Your task to perform on an android device: stop showing notifications on the lock screen Image 0: 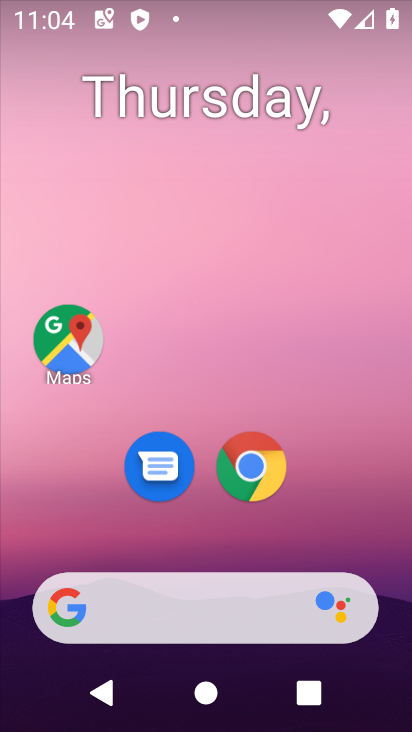
Step 0: drag from (198, 540) to (252, 30)
Your task to perform on an android device: stop showing notifications on the lock screen Image 1: 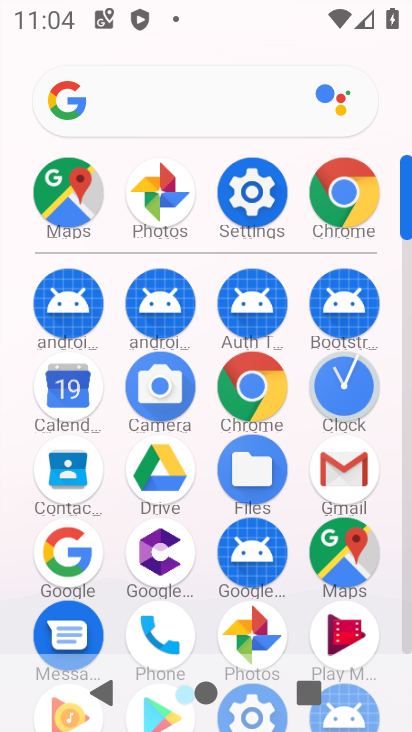
Step 1: click (250, 195)
Your task to perform on an android device: stop showing notifications on the lock screen Image 2: 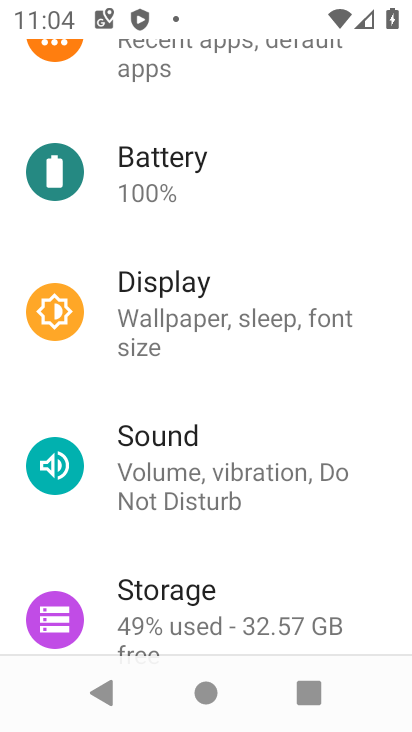
Step 2: drag from (235, 514) to (206, 85)
Your task to perform on an android device: stop showing notifications on the lock screen Image 3: 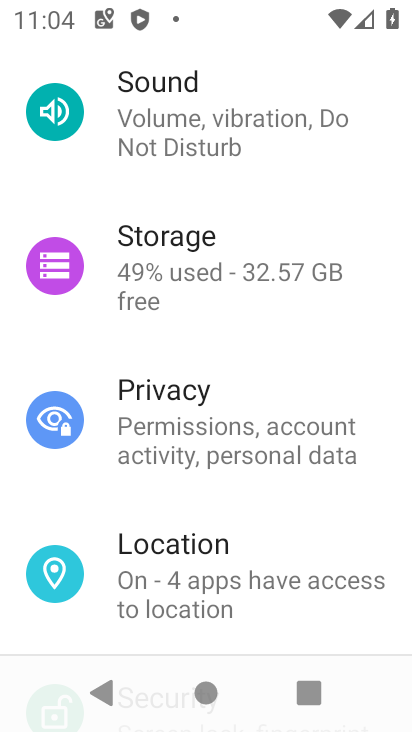
Step 3: drag from (224, 183) to (231, 648)
Your task to perform on an android device: stop showing notifications on the lock screen Image 4: 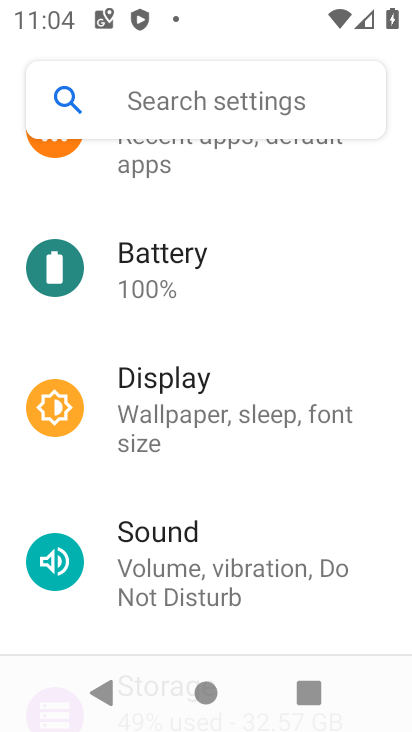
Step 4: click (216, 176)
Your task to perform on an android device: stop showing notifications on the lock screen Image 5: 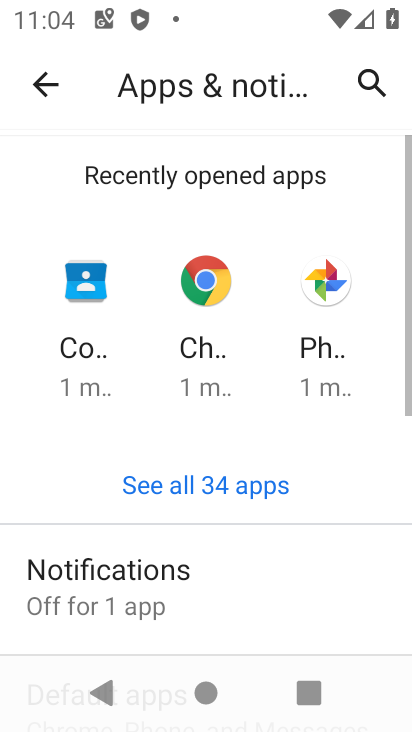
Step 5: click (161, 554)
Your task to perform on an android device: stop showing notifications on the lock screen Image 6: 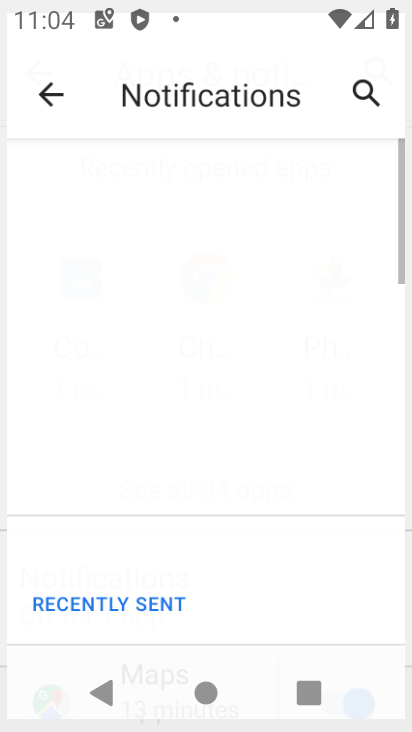
Step 6: drag from (161, 555) to (108, 19)
Your task to perform on an android device: stop showing notifications on the lock screen Image 7: 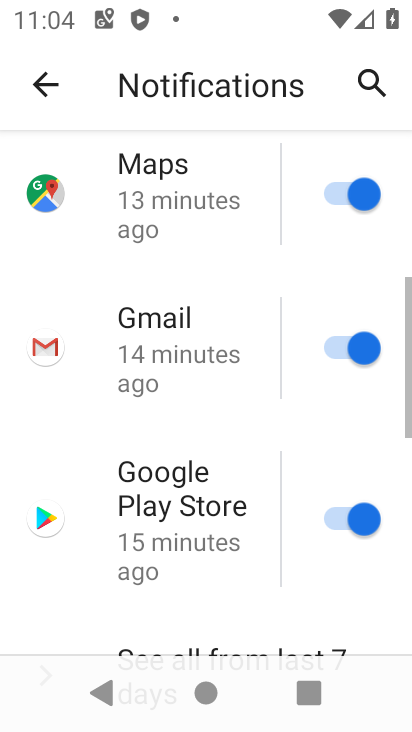
Step 7: drag from (157, 554) to (122, 33)
Your task to perform on an android device: stop showing notifications on the lock screen Image 8: 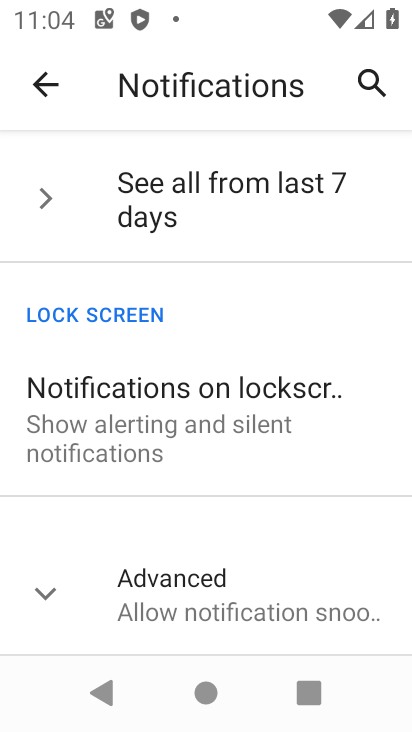
Step 8: click (256, 399)
Your task to perform on an android device: stop showing notifications on the lock screen Image 9: 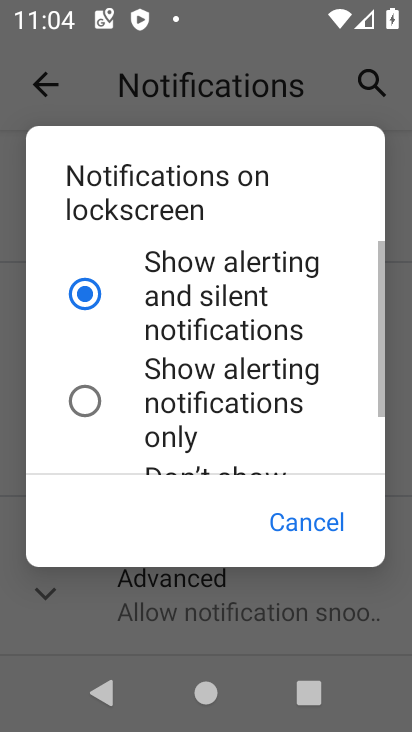
Step 9: drag from (211, 456) to (183, 237)
Your task to perform on an android device: stop showing notifications on the lock screen Image 10: 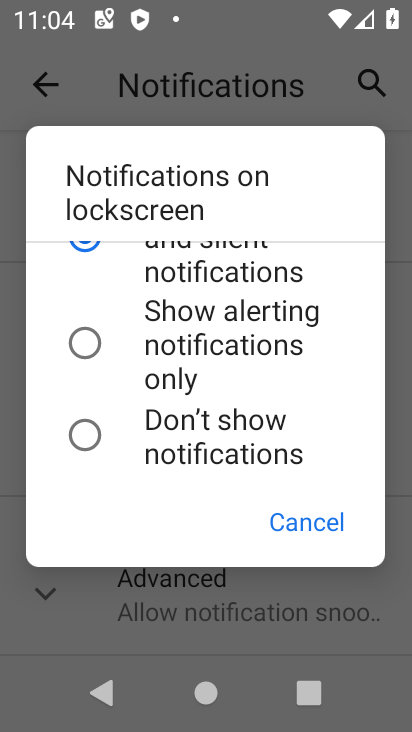
Step 10: click (139, 422)
Your task to perform on an android device: stop showing notifications on the lock screen Image 11: 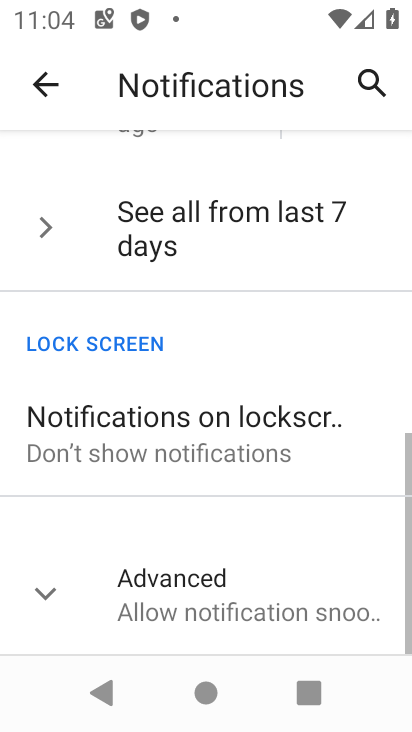
Step 11: task complete